Your task to perform on an android device: stop showing notifications on the lock screen Image 0: 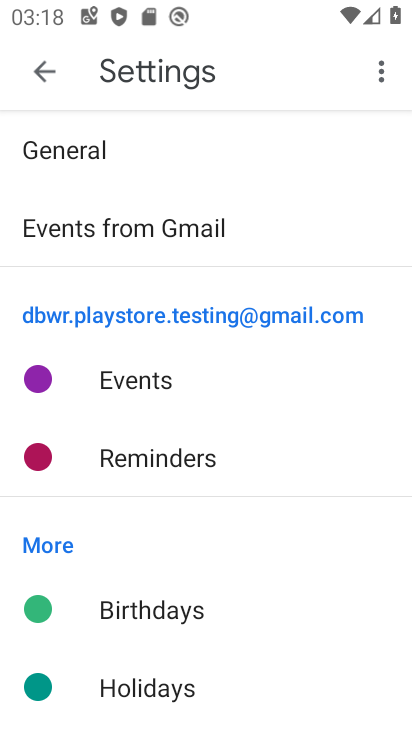
Step 0: press back button
Your task to perform on an android device: stop showing notifications on the lock screen Image 1: 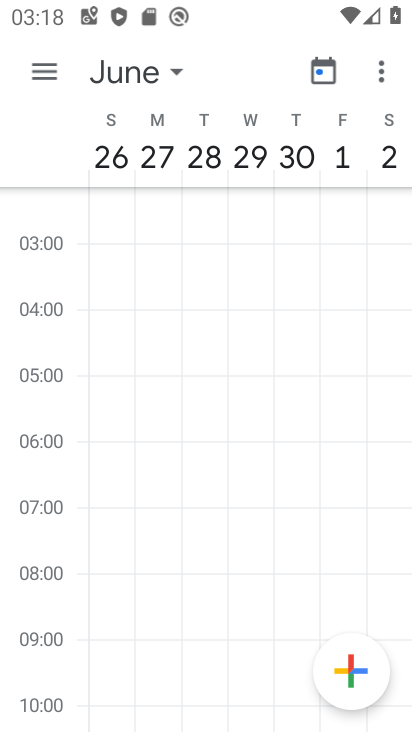
Step 1: press back button
Your task to perform on an android device: stop showing notifications on the lock screen Image 2: 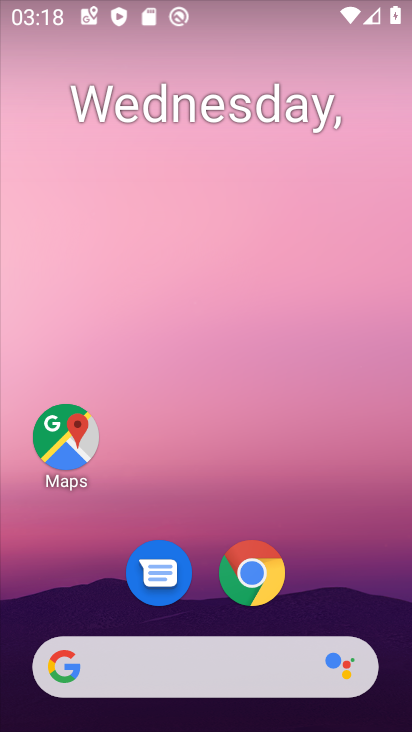
Step 2: drag from (347, 585) to (293, 37)
Your task to perform on an android device: stop showing notifications on the lock screen Image 3: 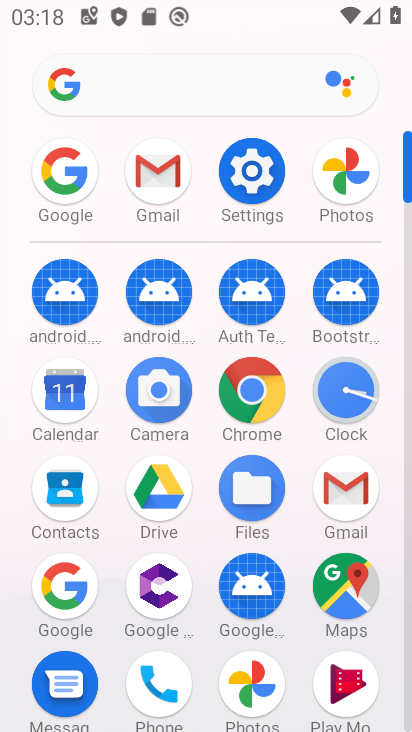
Step 3: click (252, 174)
Your task to perform on an android device: stop showing notifications on the lock screen Image 4: 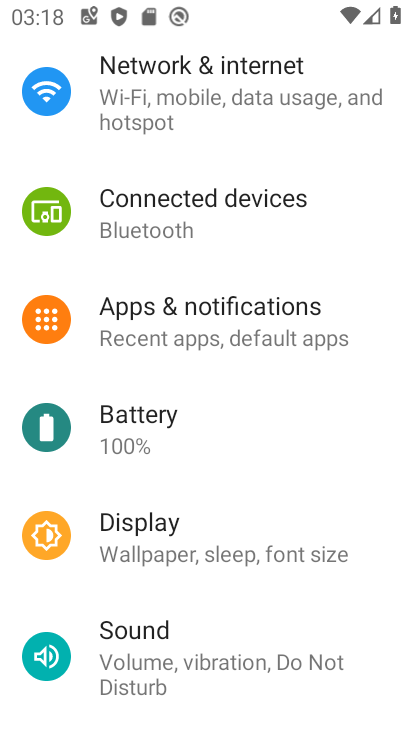
Step 4: click (195, 318)
Your task to perform on an android device: stop showing notifications on the lock screen Image 5: 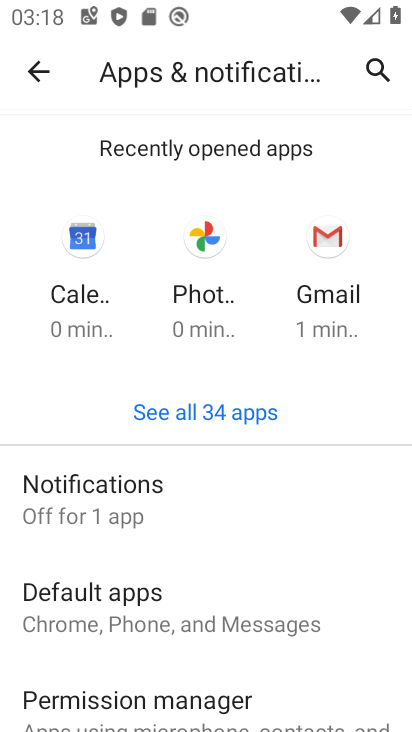
Step 5: click (118, 488)
Your task to perform on an android device: stop showing notifications on the lock screen Image 6: 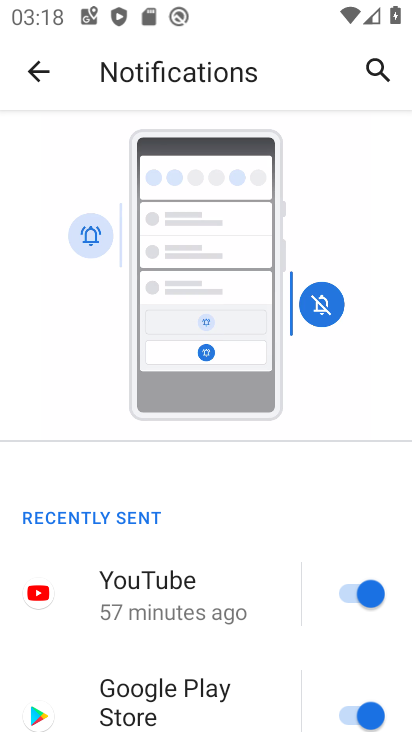
Step 6: drag from (216, 510) to (239, 386)
Your task to perform on an android device: stop showing notifications on the lock screen Image 7: 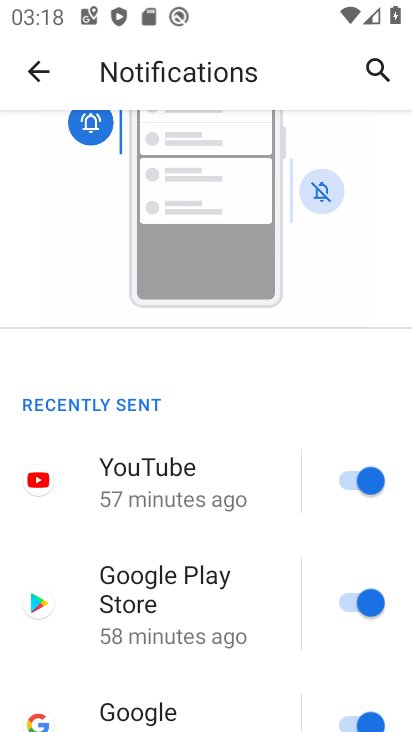
Step 7: drag from (188, 599) to (206, 465)
Your task to perform on an android device: stop showing notifications on the lock screen Image 8: 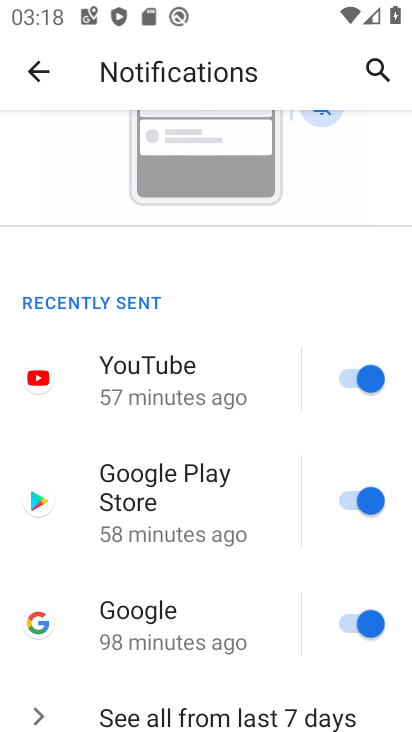
Step 8: drag from (193, 594) to (216, 449)
Your task to perform on an android device: stop showing notifications on the lock screen Image 9: 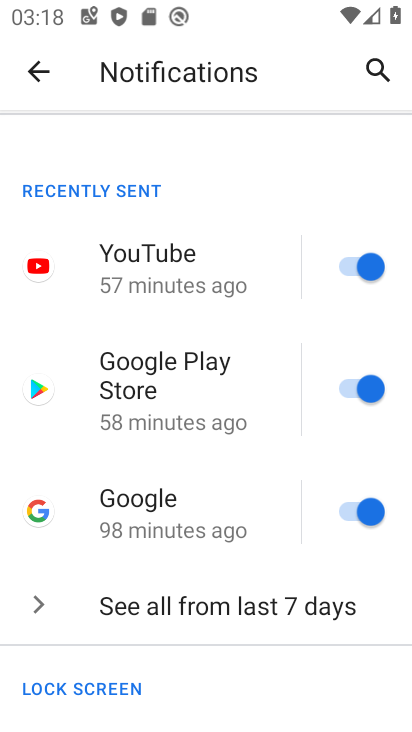
Step 9: drag from (150, 667) to (230, 448)
Your task to perform on an android device: stop showing notifications on the lock screen Image 10: 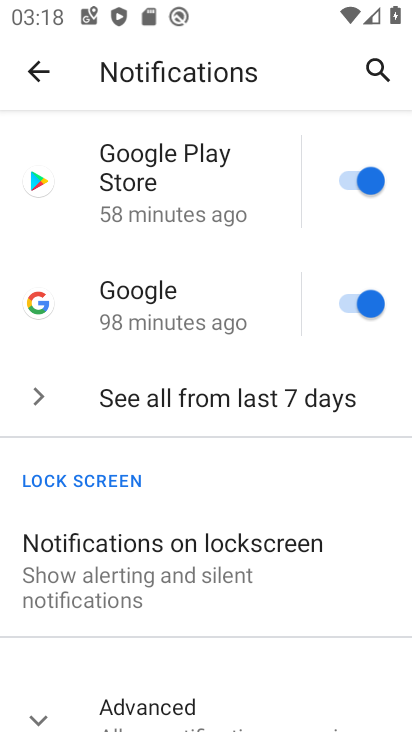
Step 10: click (163, 536)
Your task to perform on an android device: stop showing notifications on the lock screen Image 11: 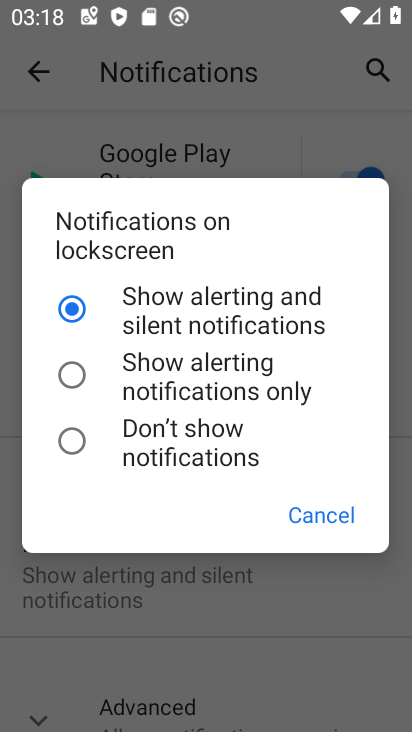
Step 11: click (74, 437)
Your task to perform on an android device: stop showing notifications on the lock screen Image 12: 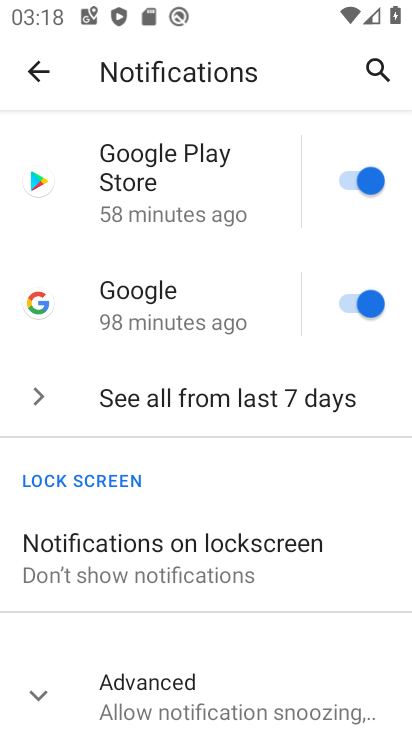
Step 12: task complete